Your task to perform on an android device: turn pop-ups off in chrome Image 0: 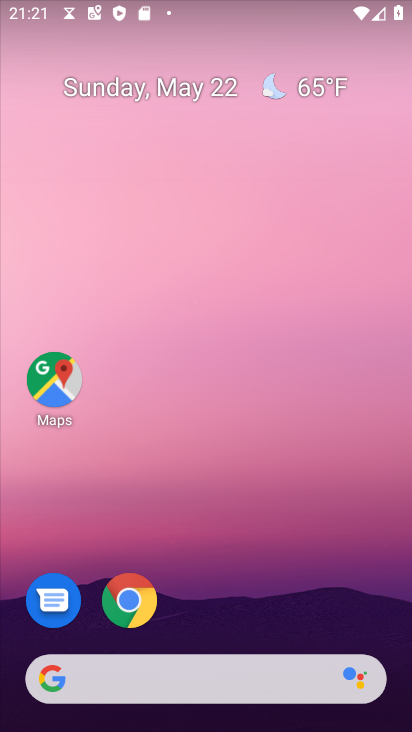
Step 0: click (142, 614)
Your task to perform on an android device: turn pop-ups off in chrome Image 1: 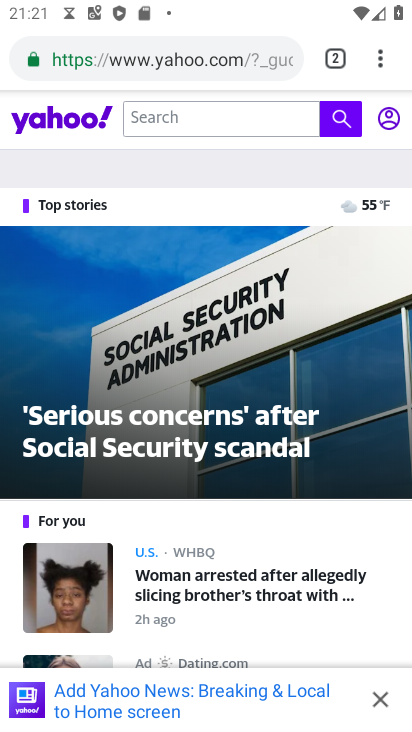
Step 1: click (382, 63)
Your task to perform on an android device: turn pop-ups off in chrome Image 2: 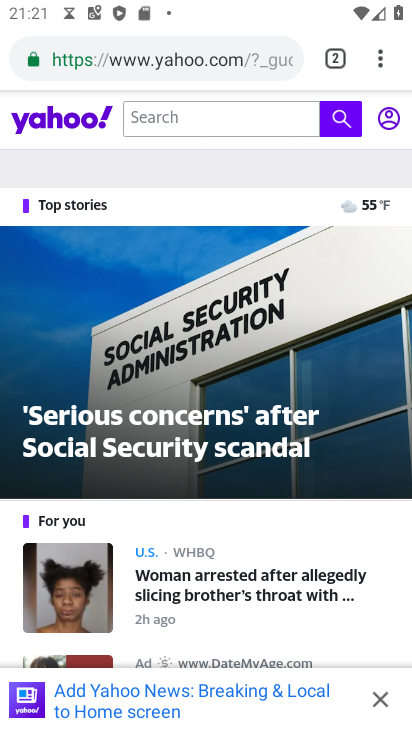
Step 2: click (383, 57)
Your task to perform on an android device: turn pop-ups off in chrome Image 3: 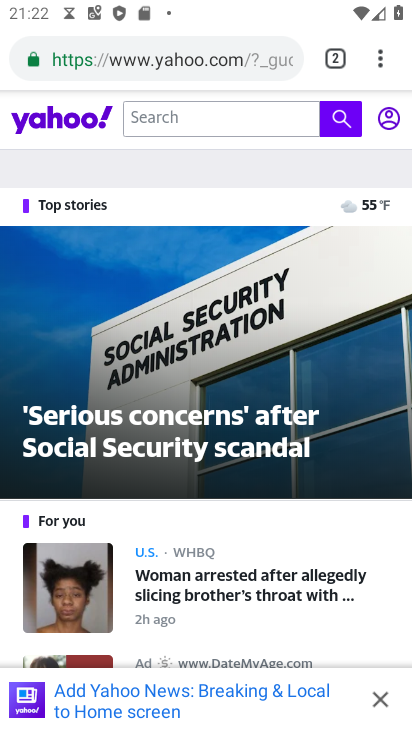
Step 3: click (382, 60)
Your task to perform on an android device: turn pop-ups off in chrome Image 4: 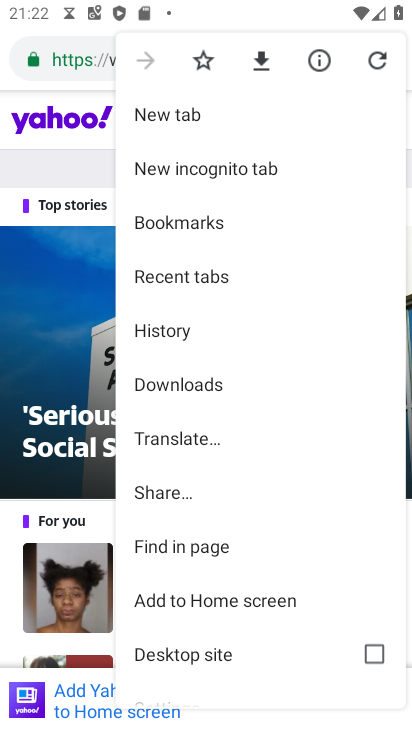
Step 4: drag from (218, 596) to (221, 353)
Your task to perform on an android device: turn pop-ups off in chrome Image 5: 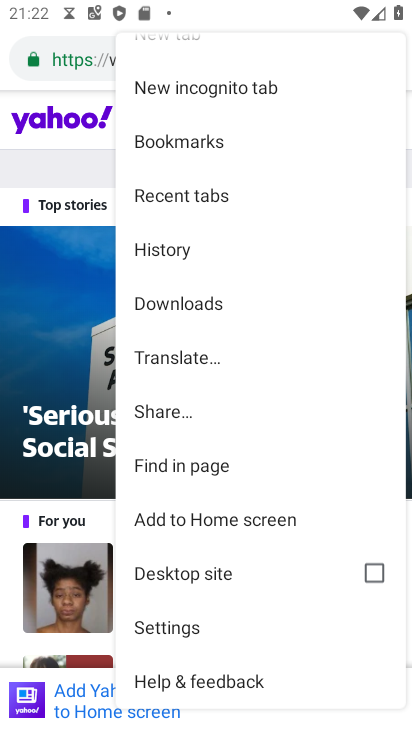
Step 5: click (170, 620)
Your task to perform on an android device: turn pop-ups off in chrome Image 6: 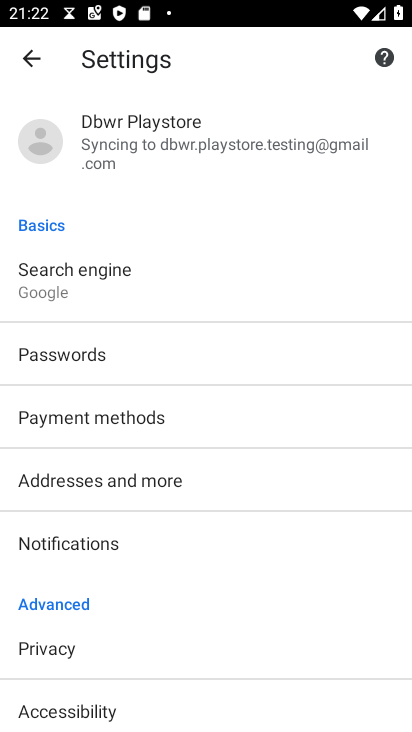
Step 6: drag from (86, 643) to (131, 401)
Your task to perform on an android device: turn pop-ups off in chrome Image 7: 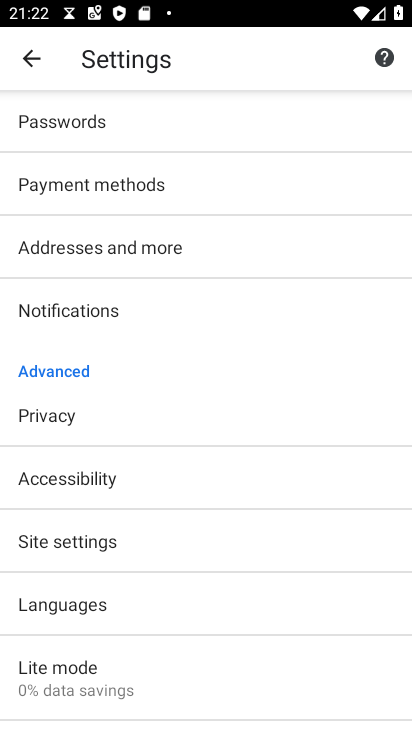
Step 7: click (40, 547)
Your task to perform on an android device: turn pop-ups off in chrome Image 8: 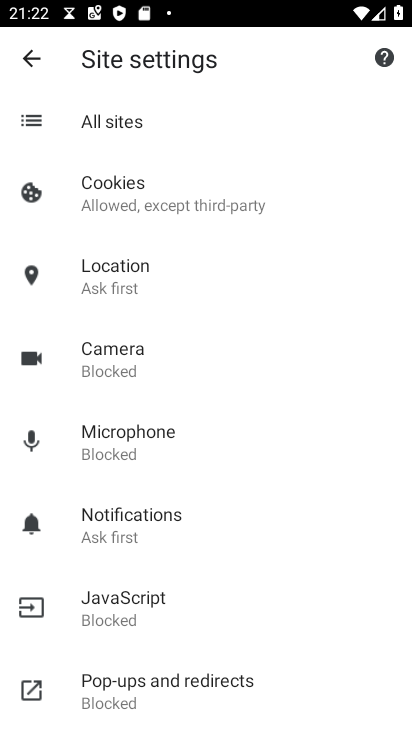
Step 8: click (137, 702)
Your task to perform on an android device: turn pop-ups off in chrome Image 9: 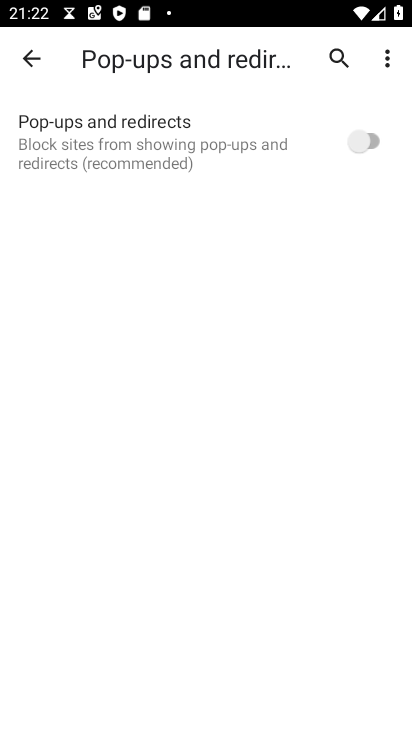
Step 9: task complete